Your task to perform on an android device: Search for "alienware aurora" on bestbuy, select the first entry, and add it to the cart. Image 0: 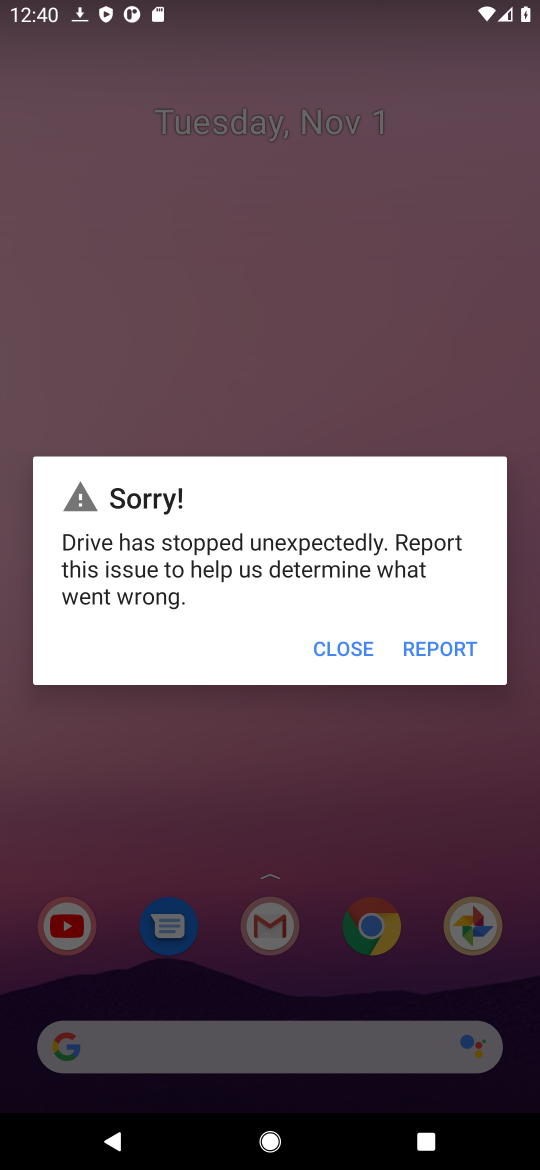
Step 0: click (310, 665)
Your task to perform on an android device: Search for "alienware aurora" on bestbuy, select the first entry, and add it to the cart. Image 1: 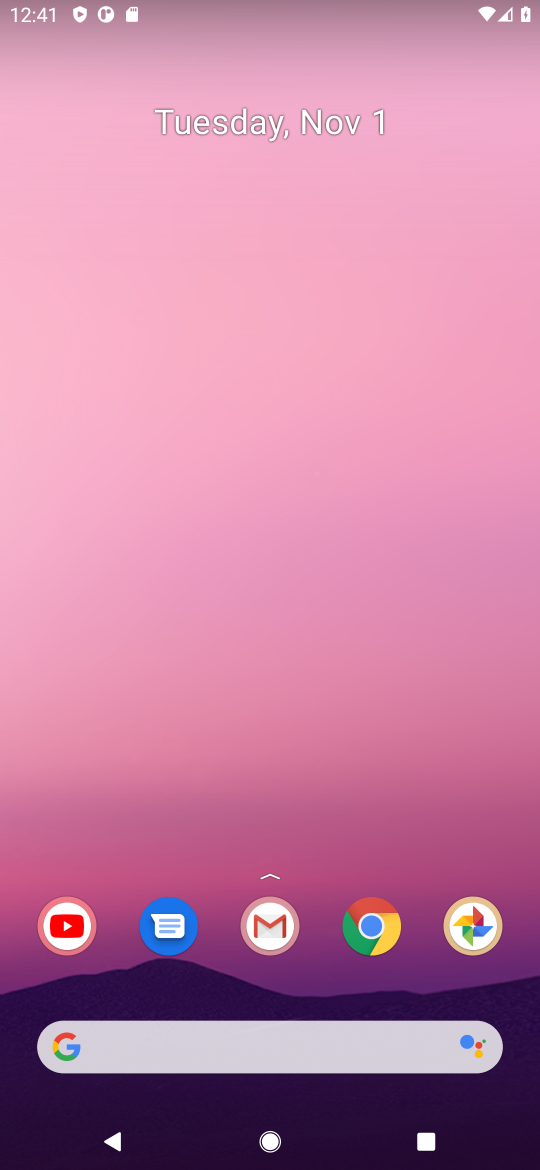
Step 1: click (355, 934)
Your task to perform on an android device: Search for "alienware aurora" on bestbuy, select the first entry, and add it to the cart. Image 2: 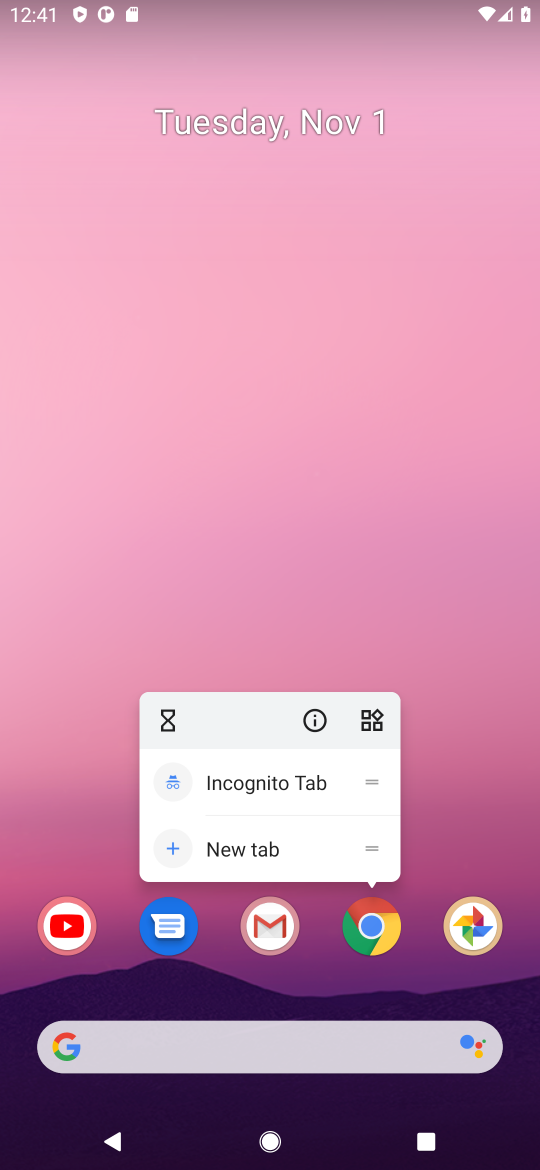
Step 2: click (372, 937)
Your task to perform on an android device: Search for "alienware aurora" on bestbuy, select the first entry, and add it to the cart. Image 3: 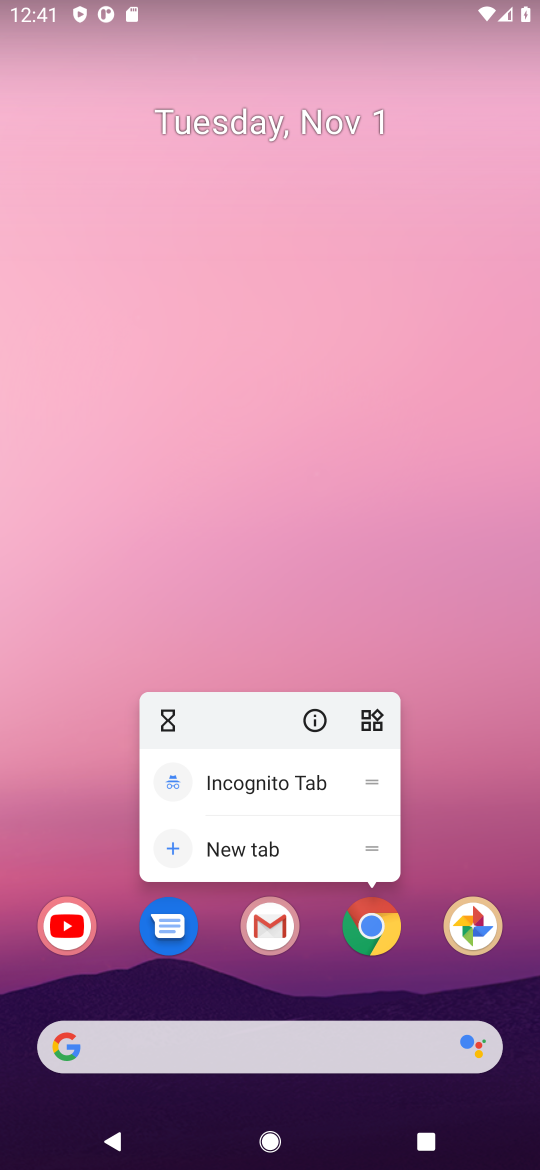
Step 3: click (372, 937)
Your task to perform on an android device: Search for "alienware aurora" on bestbuy, select the first entry, and add it to the cart. Image 4: 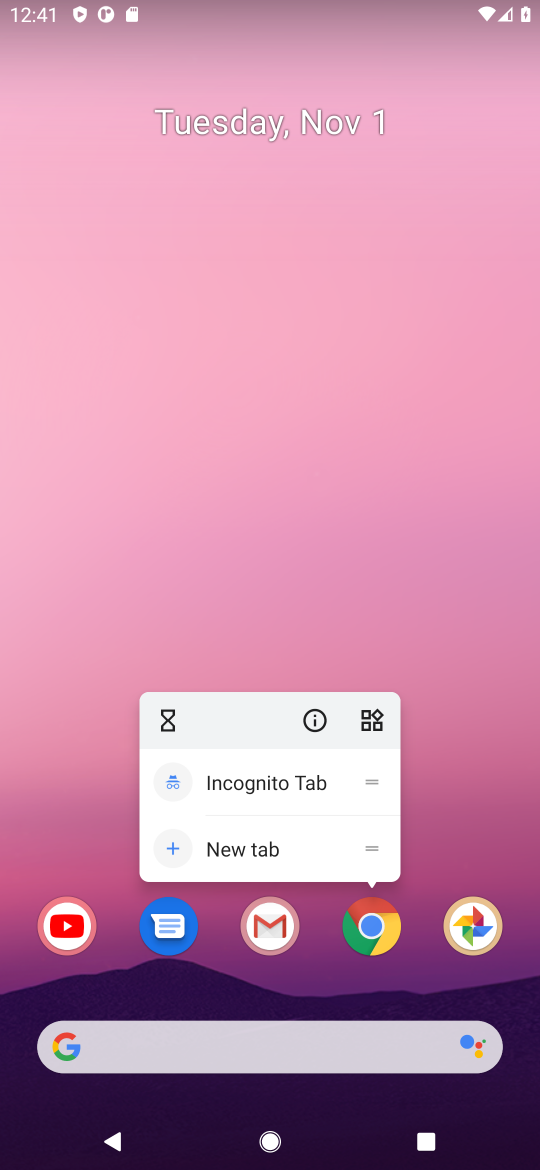
Step 4: click (371, 930)
Your task to perform on an android device: Search for "alienware aurora" on bestbuy, select the first entry, and add it to the cart. Image 5: 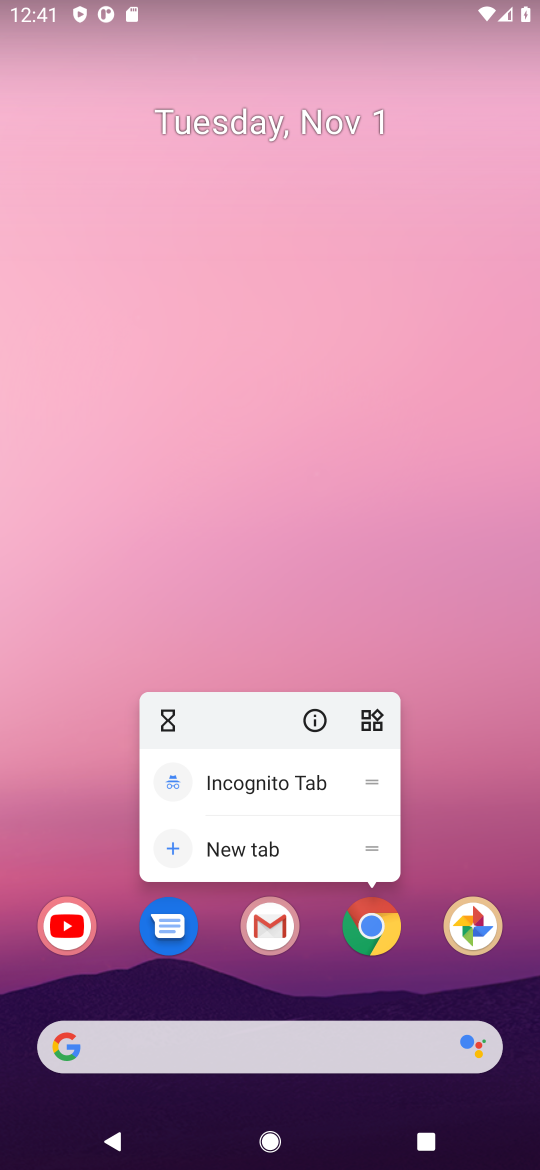
Step 5: click (369, 939)
Your task to perform on an android device: Search for "alienware aurora" on bestbuy, select the first entry, and add it to the cart. Image 6: 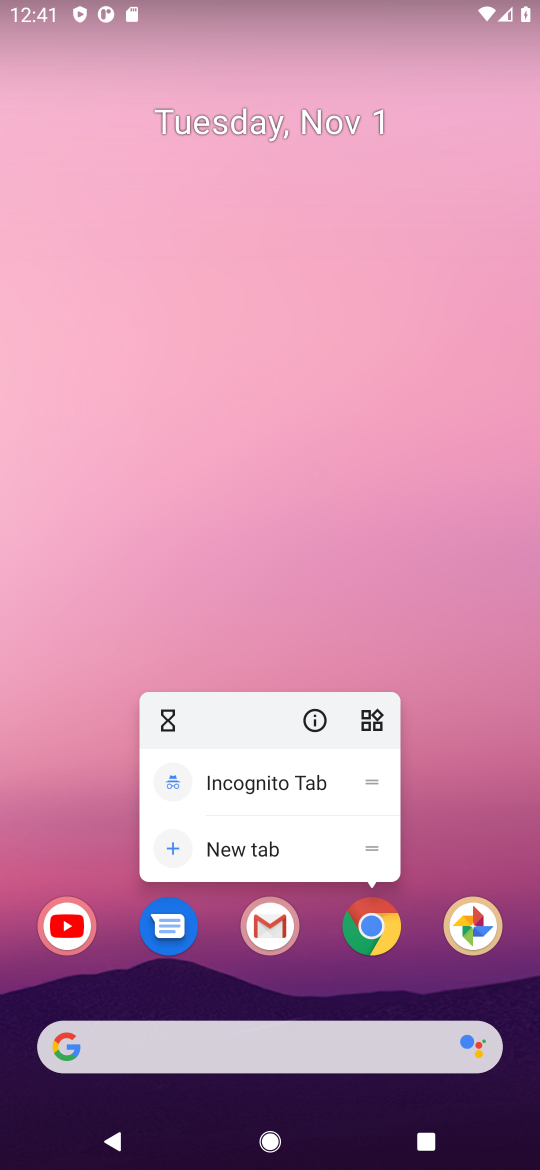
Step 6: click (377, 952)
Your task to perform on an android device: Search for "alienware aurora" on bestbuy, select the first entry, and add it to the cart. Image 7: 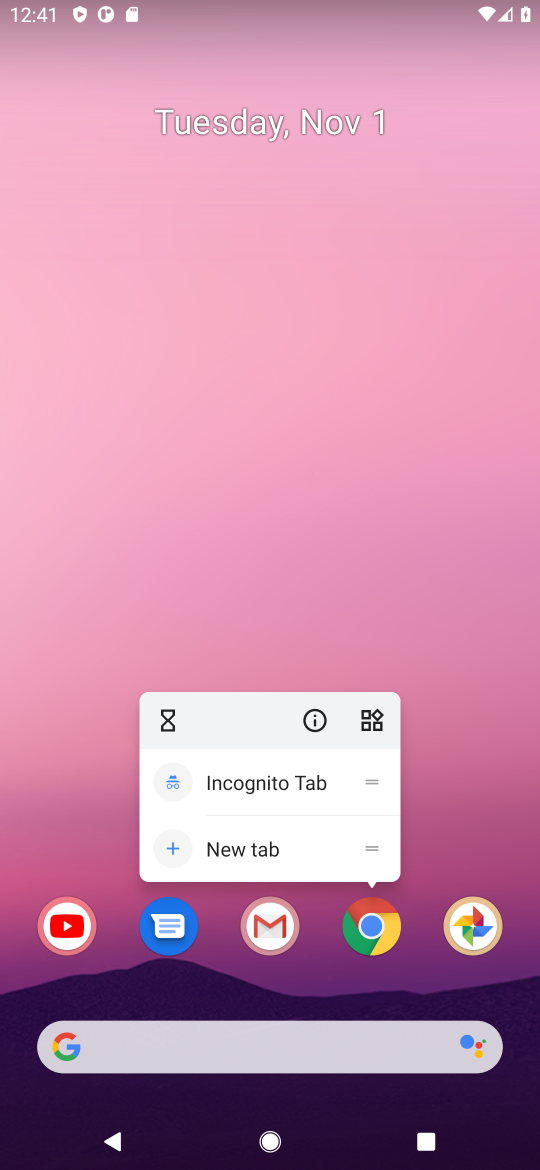
Step 7: click (378, 936)
Your task to perform on an android device: Search for "alienware aurora" on bestbuy, select the first entry, and add it to the cart. Image 8: 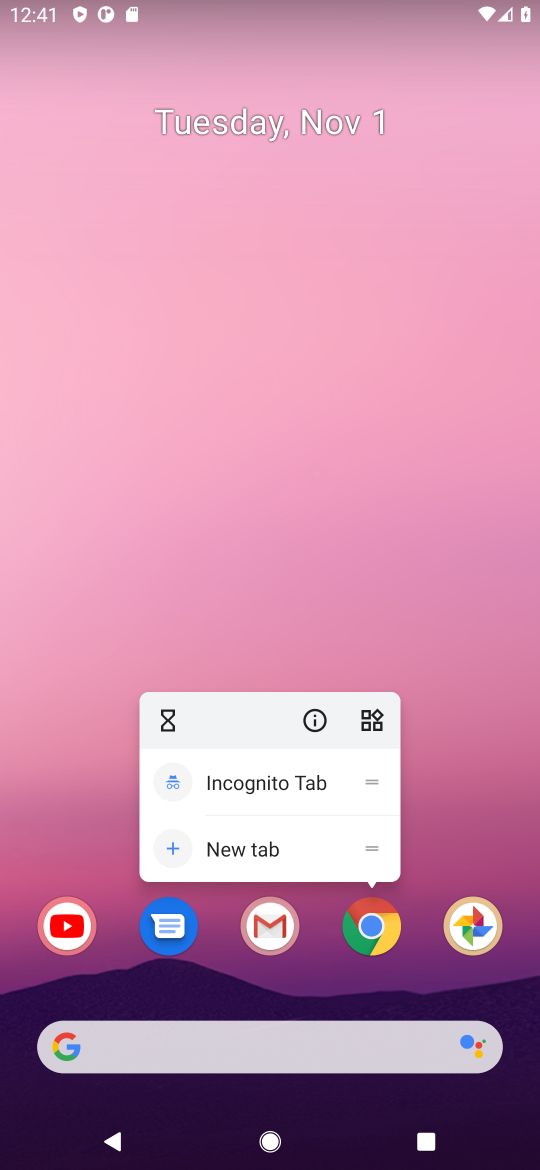
Step 8: click (377, 930)
Your task to perform on an android device: Search for "alienware aurora" on bestbuy, select the first entry, and add it to the cart. Image 9: 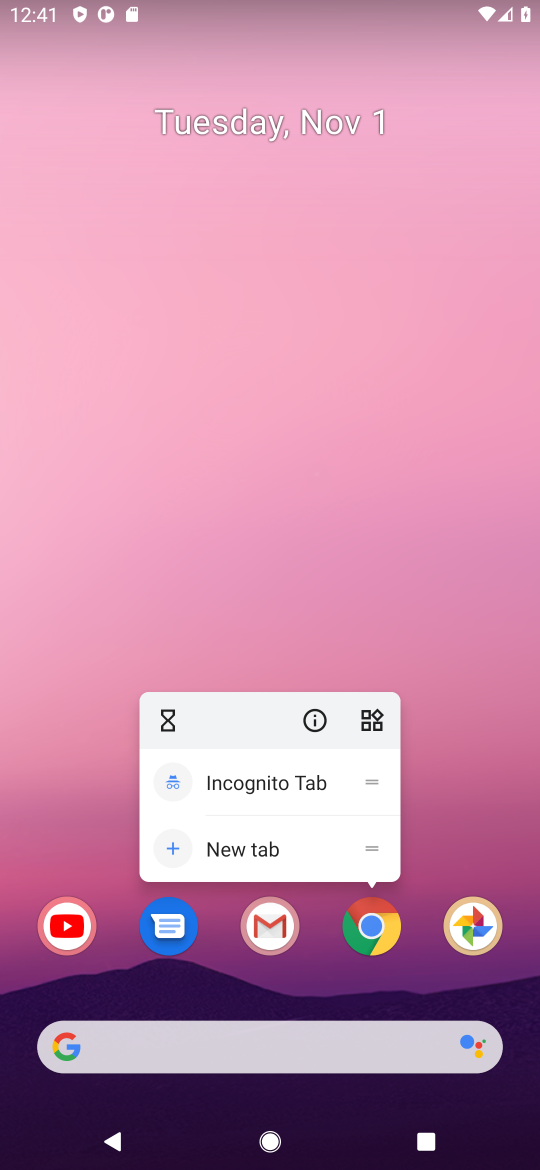
Step 9: click (372, 930)
Your task to perform on an android device: Search for "alienware aurora" on bestbuy, select the first entry, and add it to the cart. Image 10: 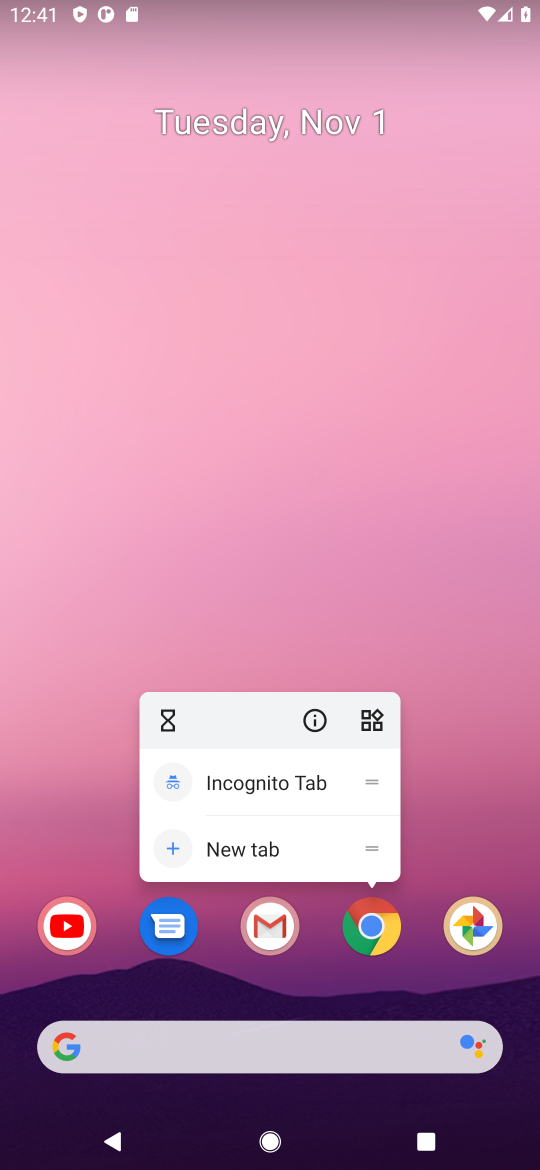
Step 10: click (372, 954)
Your task to perform on an android device: Search for "alienware aurora" on bestbuy, select the first entry, and add it to the cart. Image 11: 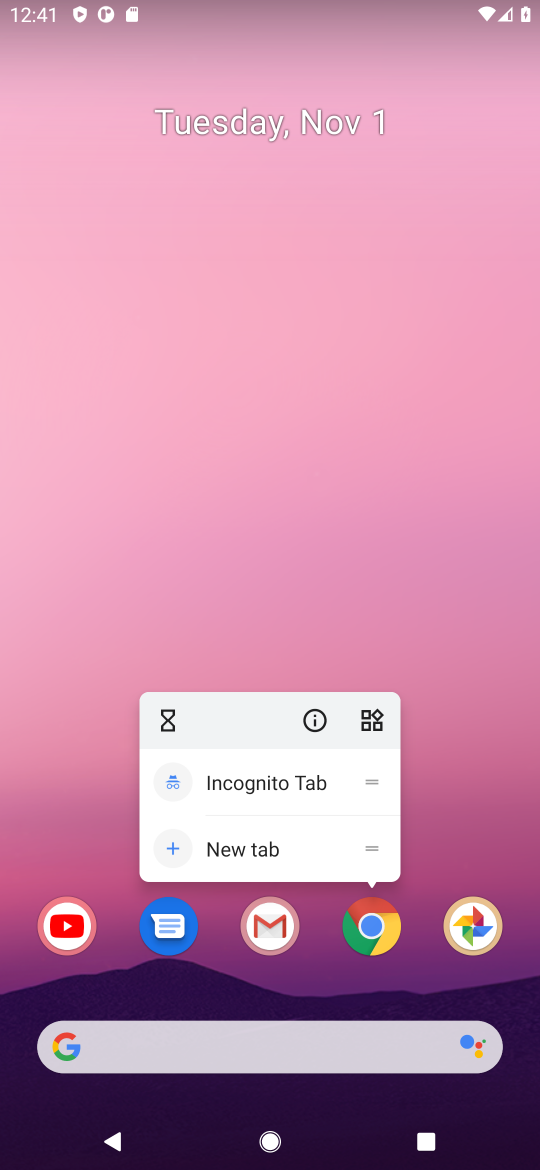
Step 11: click (366, 924)
Your task to perform on an android device: Search for "alienware aurora" on bestbuy, select the first entry, and add it to the cart. Image 12: 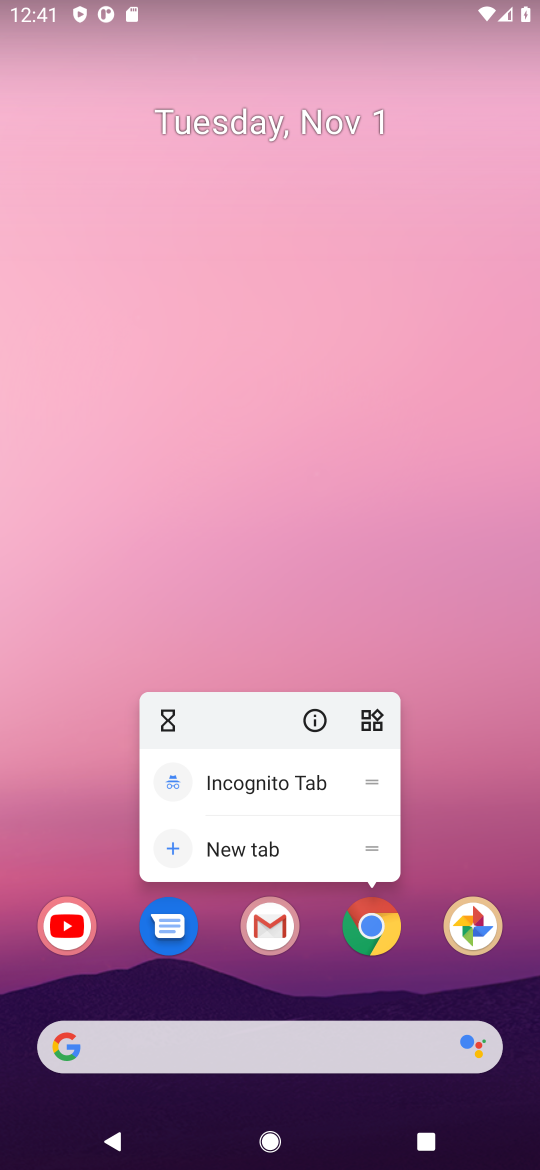
Step 12: drag from (364, 566) to (331, 16)
Your task to perform on an android device: Search for "alienware aurora" on bestbuy, select the first entry, and add it to the cart. Image 13: 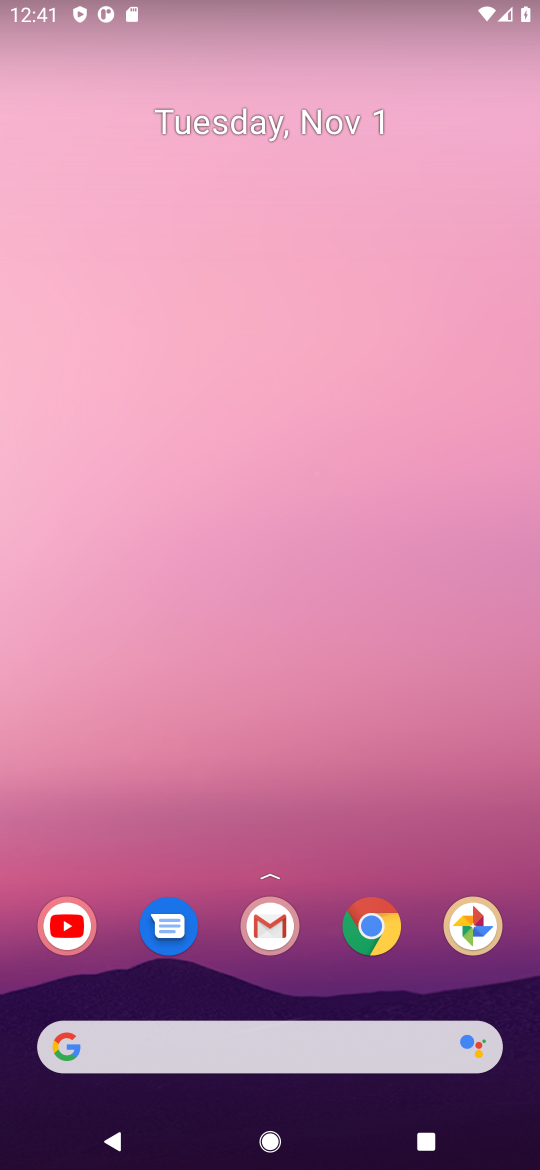
Step 13: drag from (343, 1014) to (322, 80)
Your task to perform on an android device: Search for "alienware aurora" on bestbuy, select the first entry, and add it to the cart. Image 14: 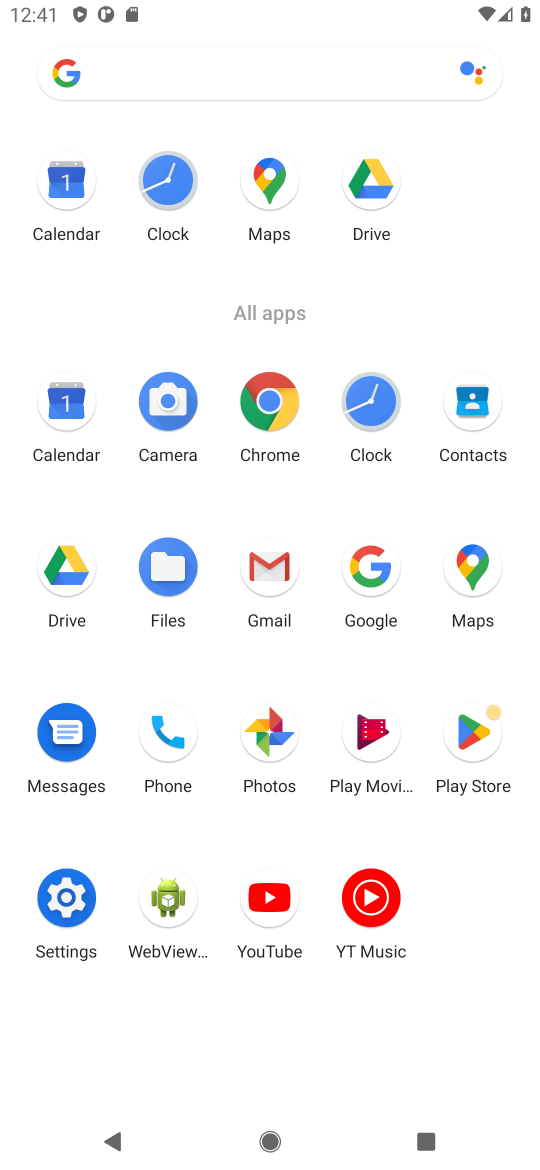
Step 14: click (261, 456)
Your task to perform on an android device: Search for "alienware aurora" on bestbuy, select the first entry, and add it to the cart. Image 15: 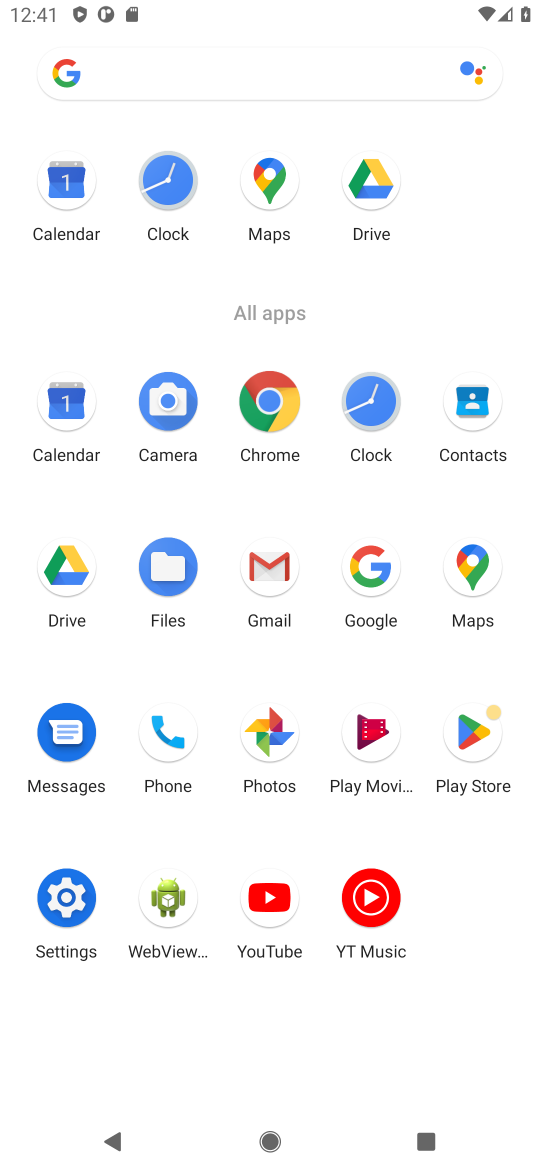
Step 15: click (268, 408)
Your task to perform on an android device: Search for "alienware aurora" on bestbuy, select the first entry, and add it to the cart. Image 16: 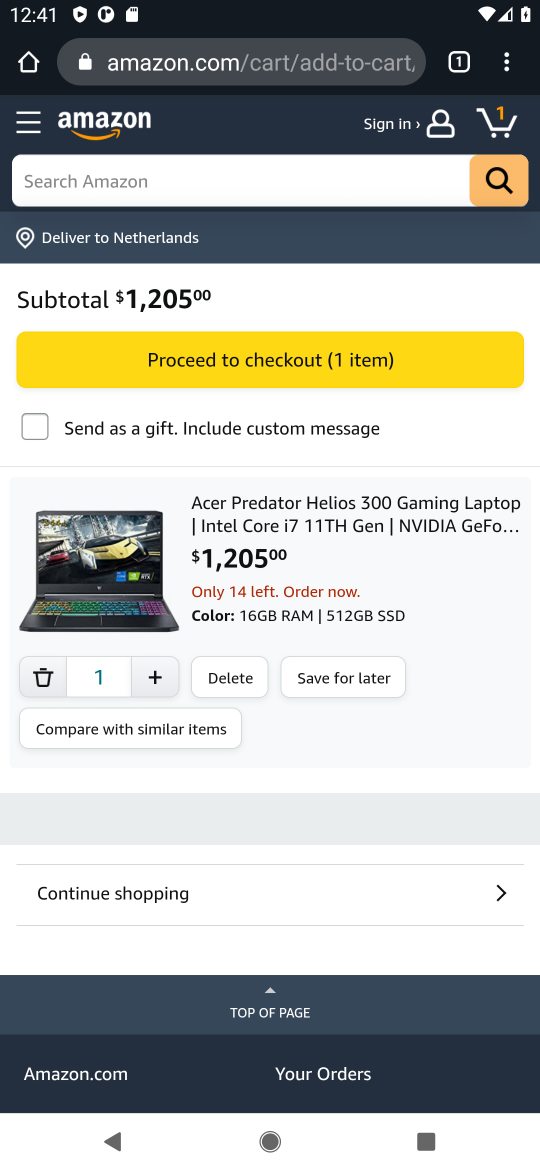
Step 16: click (203, 77)
Your task to perform on an android device: Search for "alienware aurora" on bestbuy, select the first entry, and add it to the cart. Image 17: 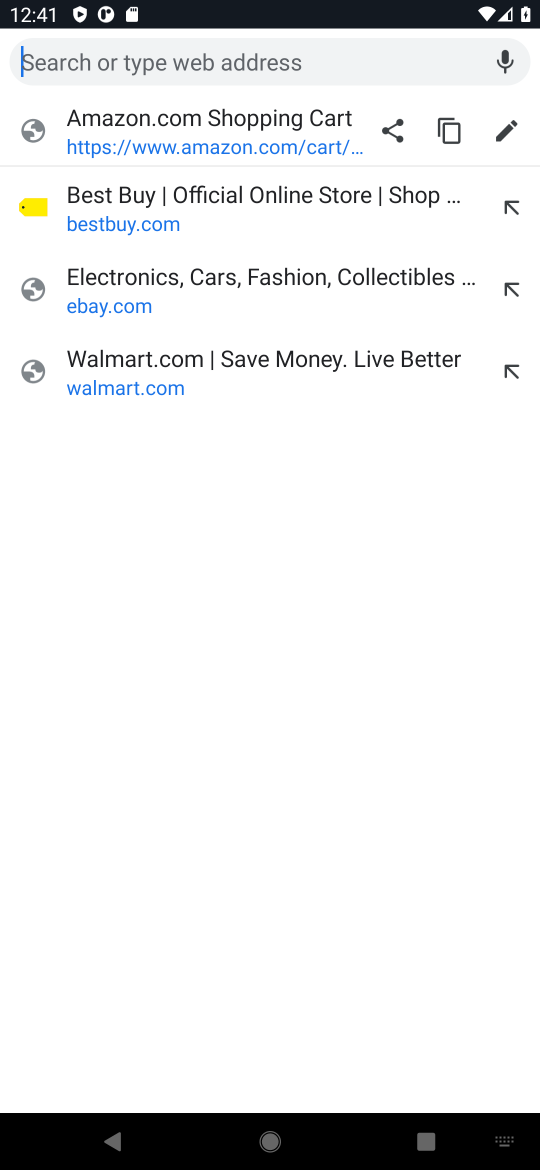
Step 17: click (172, 224)
Your task to perform on an android device: Search for "alienware aurora" on bestbuy, select the first entry, and add it to the cart. Image 18: 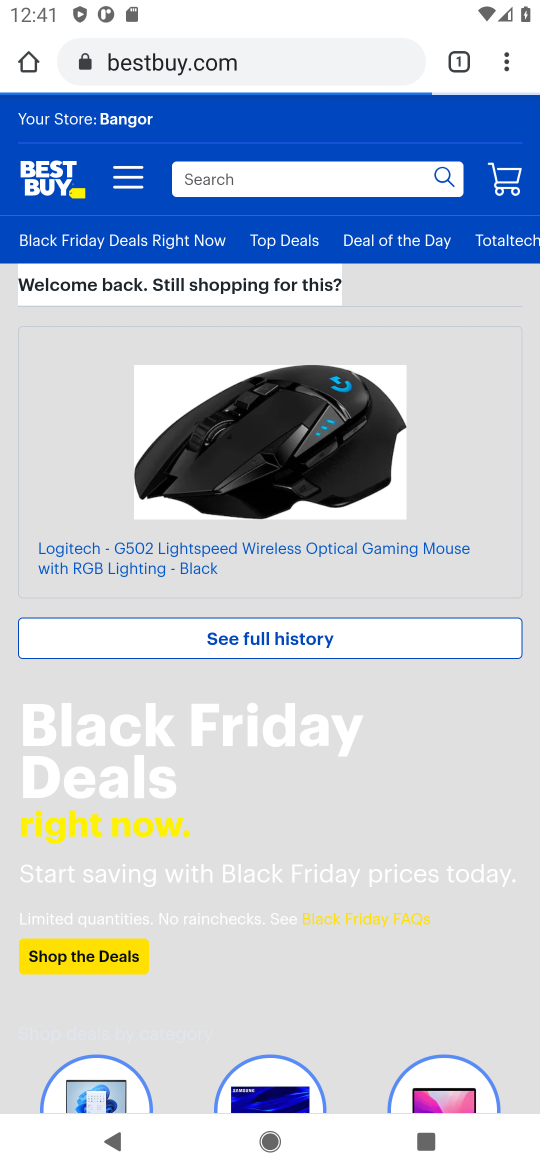
Step 18: click (218, 180)
Your task to perform on an android device: Search for "alienware aurora" on bestbuy, select the first entry, and add it to the cart. Image 19: 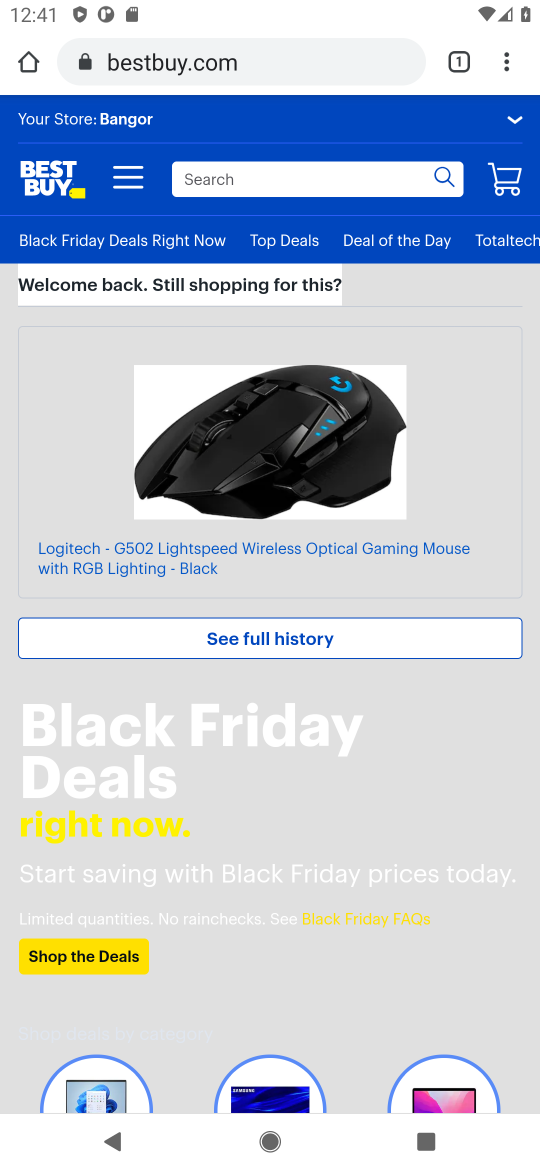
Step 19: click (269, 178)
Your task to perform on an android device: Search for "alienware aurora" on bestbuy, select the first entry, and add it to the cart. Image 20: 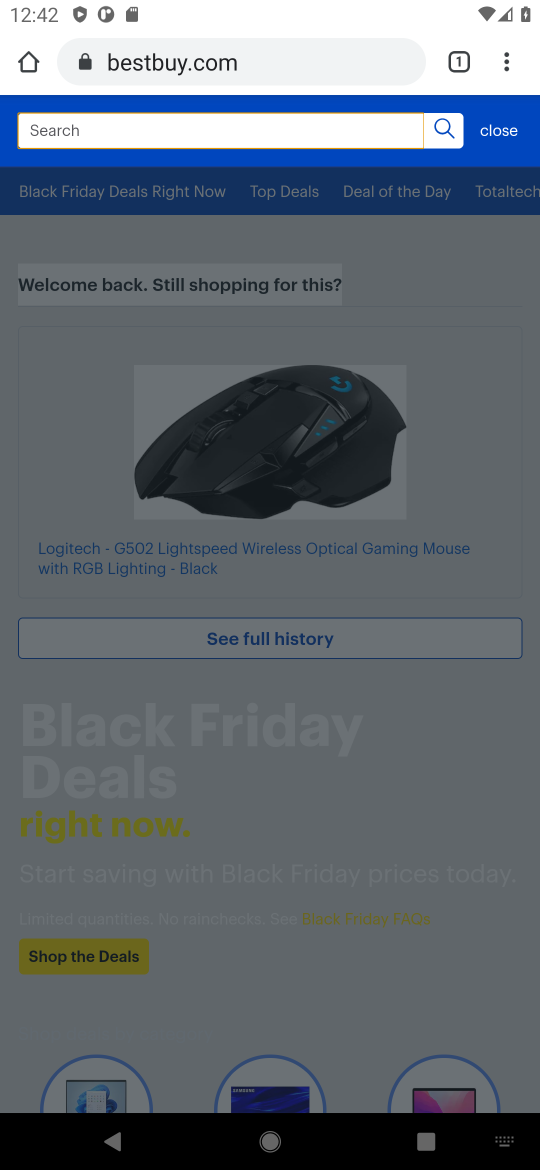
Step 20: type "alienware aurora"
Your task to perform on an android device: Search for "alienware aurora" on bestbuy, select the first entry, and add it to the cart. Image 21: 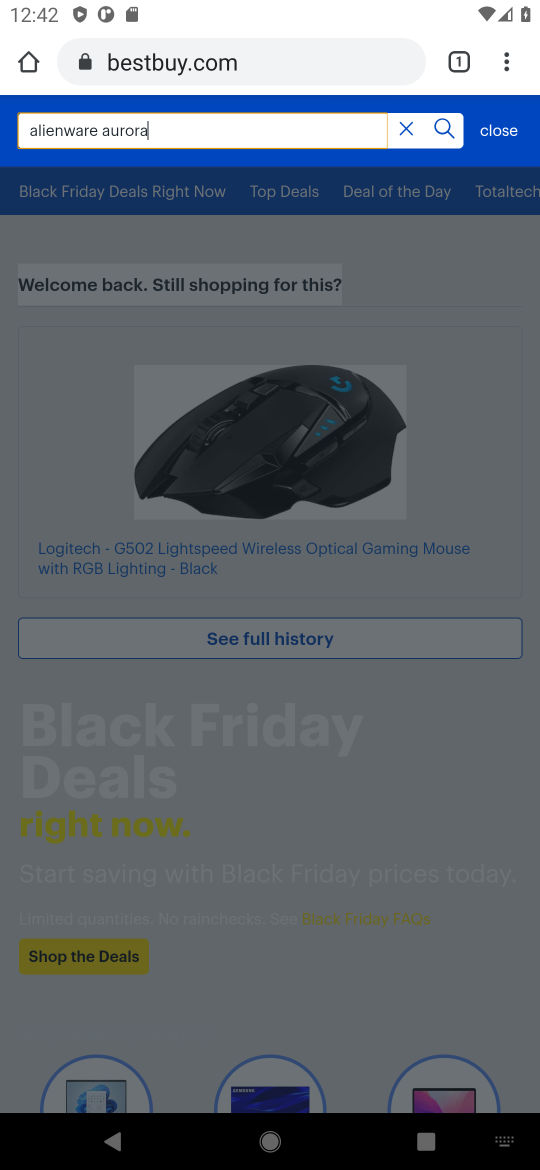
Step 21: type ""
Your task to perform on an android device: Search for "alienware aurora" on bestbuy, select the first entry, and add it to the cart. Image 22: 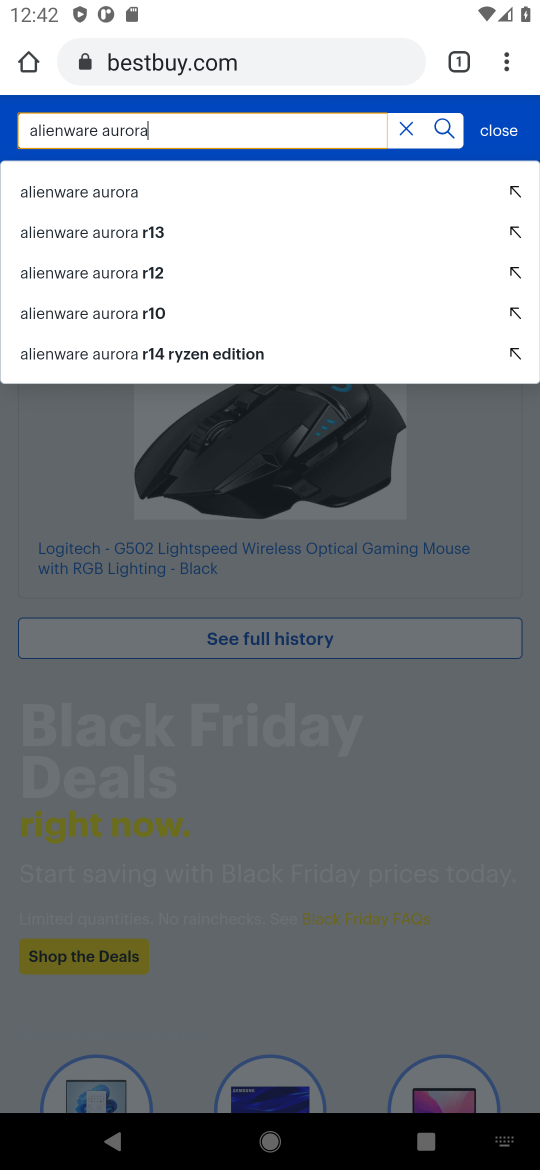
Step 22: click (233, 195)
Your task to perform on an android device: Search for "alienware aurora" on bestbuy, select the first entry, and add it to the cart. Image 23: 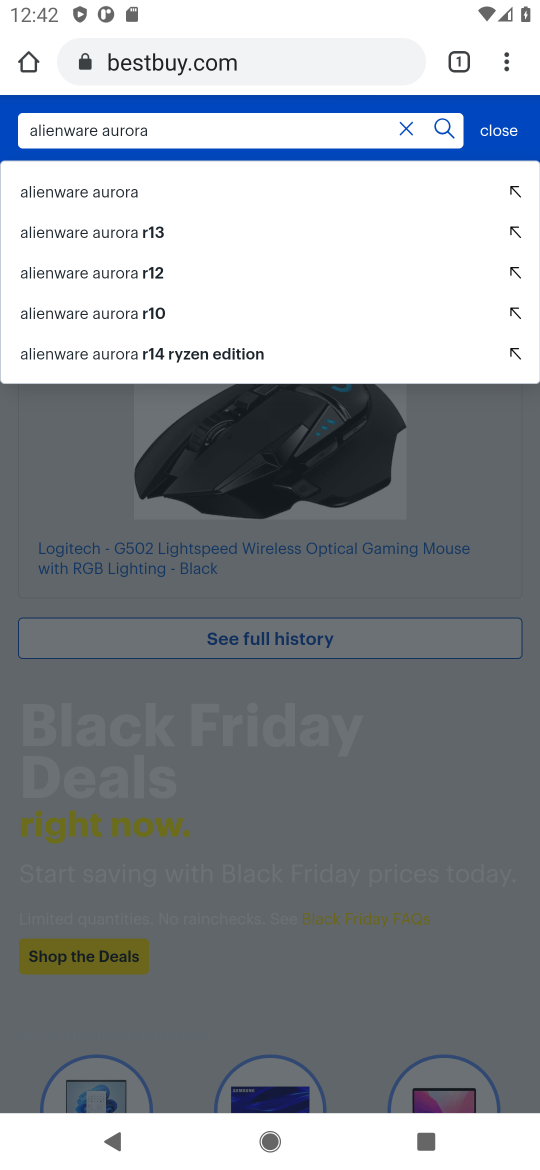
Step 23: click (148, 201)
Your task to perform on an android device: Search for "alienware aurora" on bestbuy, select the first entry, and add it to the cart. Image 24: 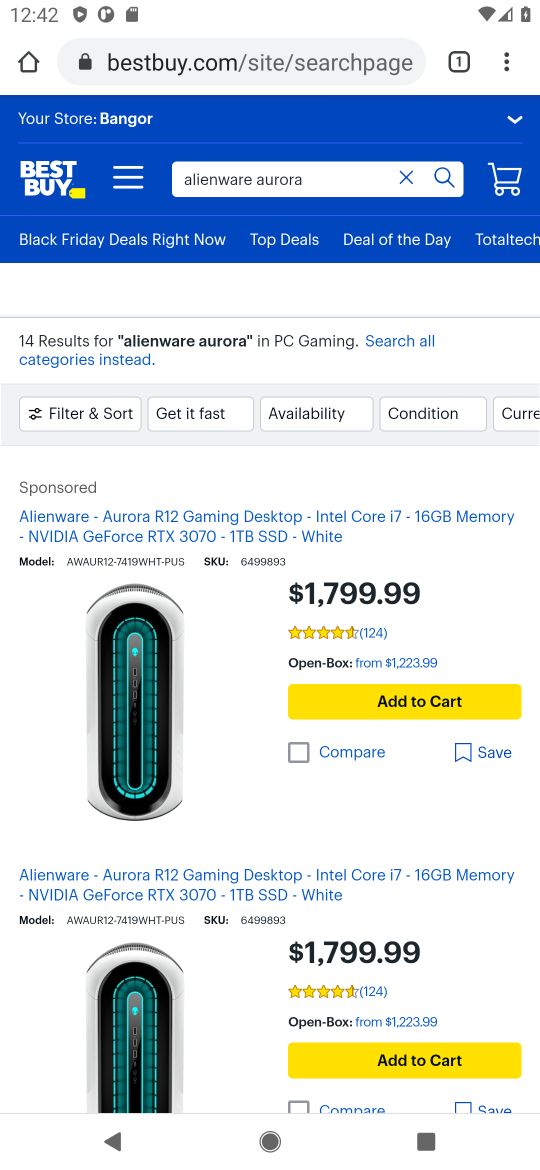
Step 24: click (425, 746)
Your task to perform on an android device: Search for "alienware aurora" on bestbuy, select the first entry, and add it to the cart. Image 25: 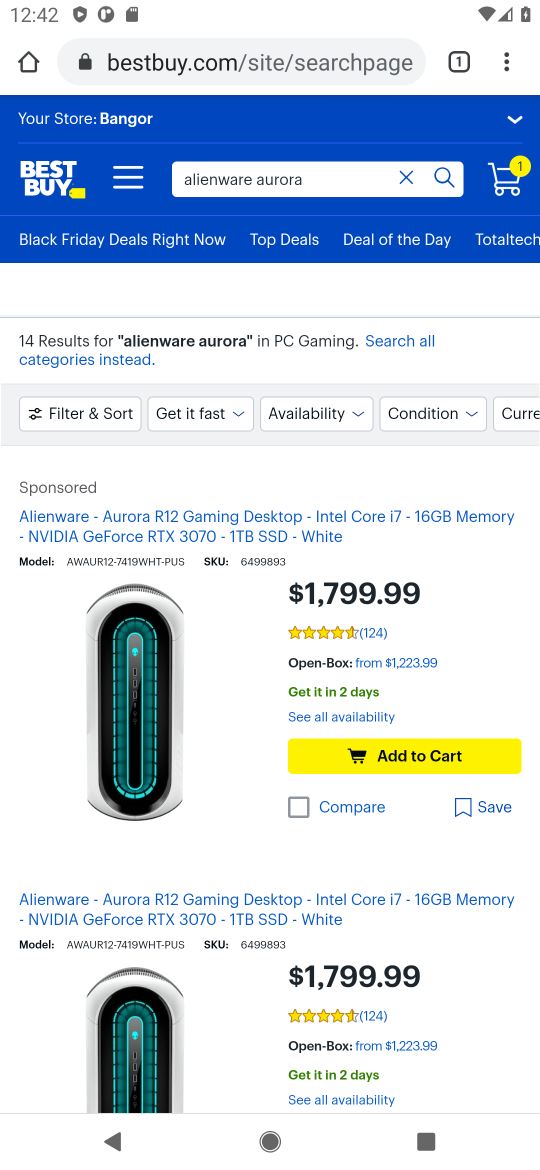
Step 25: click (494, 183)
Your task to perform on an android device: Search for "alienware aurora" on bestbuy, select the first entry, and add it to the cart. Image 26: 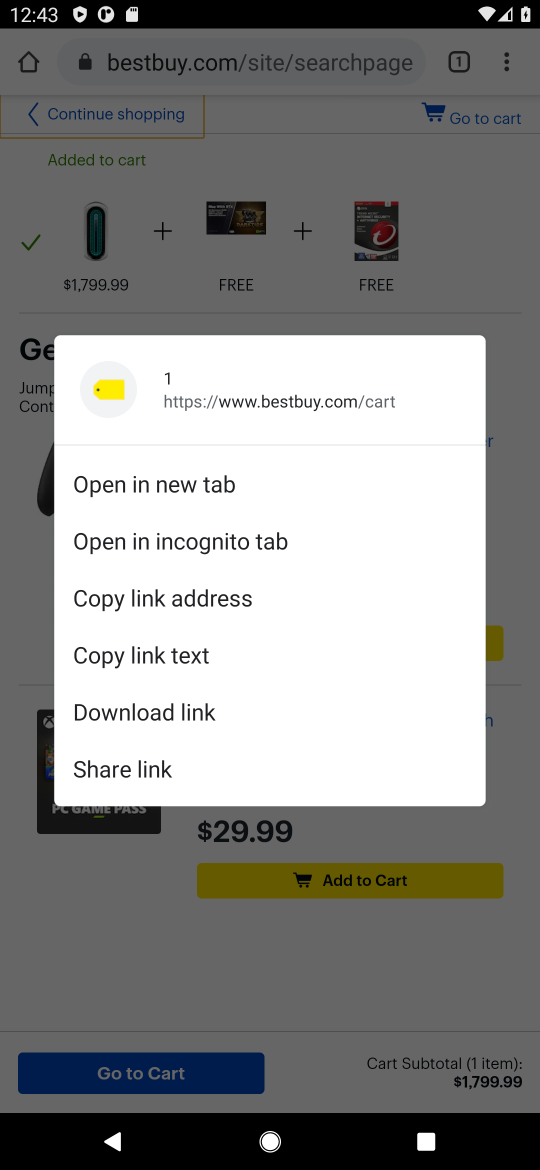
Step 26: click (177, 936)
Your task to perform on an android device: Search for "alienware aurora" on bestbuy, select the first entry, and add it to the cart. Image 27: 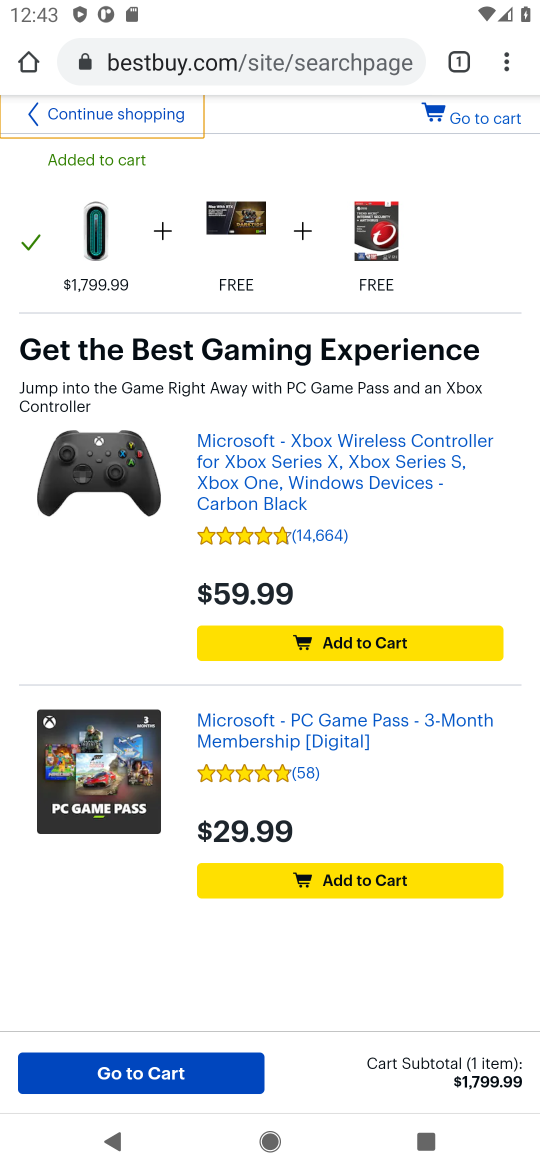
Step 27: click (224, 1053)
Your task to perform on an android device: Search for "alienware aurora" on bestbuy, select the first entry, and add it to the cart. Image 28: 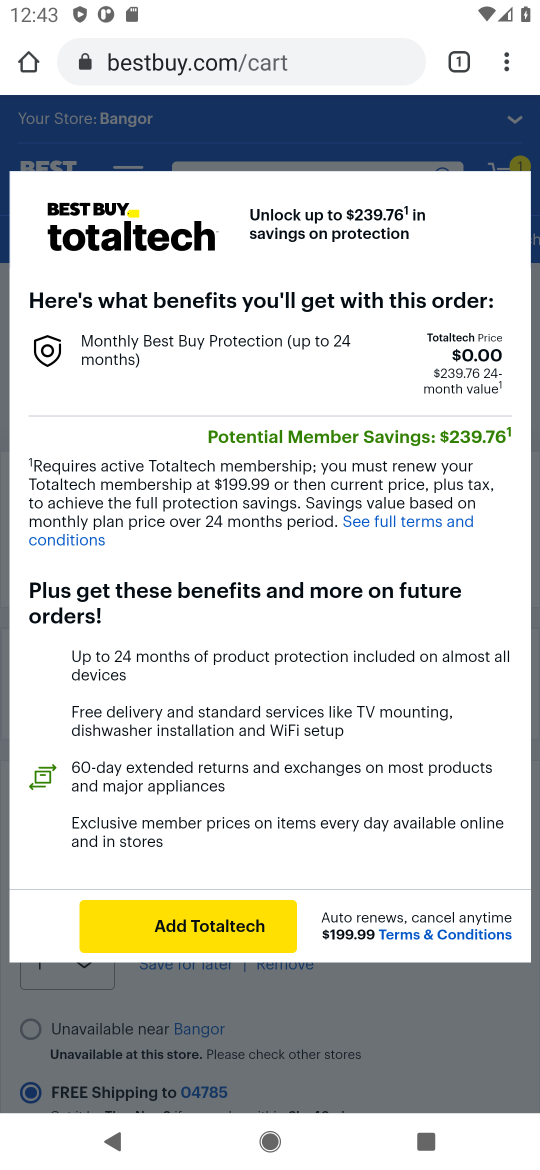
Step 28: click (291, 562)
Your task to perform on an android device: Search for "alienware aurora" on bestbuy, select the first entry, and add it to the cart. Image 29: 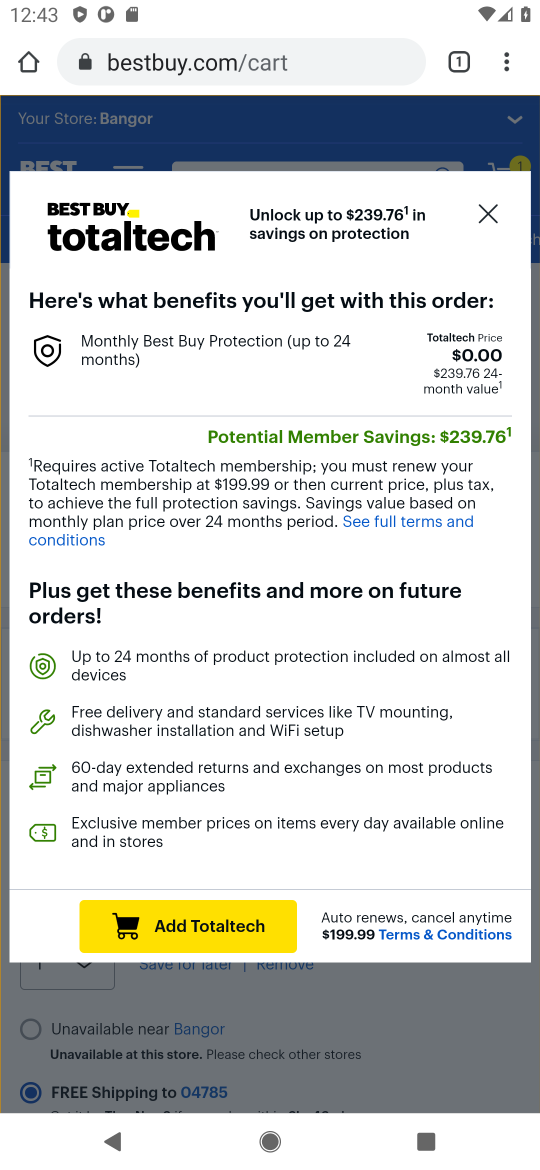
Step 29: click (481, 216)
Your task to perform on an android device: Search for "alienware aurora" on bestbuy, select the first entry, and add it to the cart. Image 30: 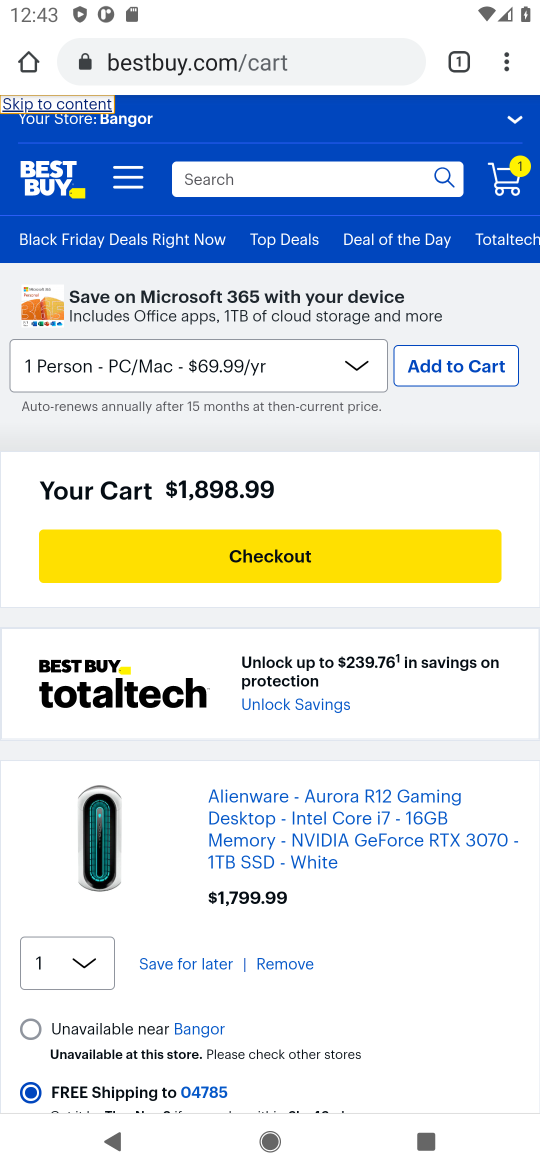
Step 30: click (295, 560)
Your task to perform on an android device: Search for "alienware aurora" on bestbuy, select the first entry, and add it to the cart. Image 31: 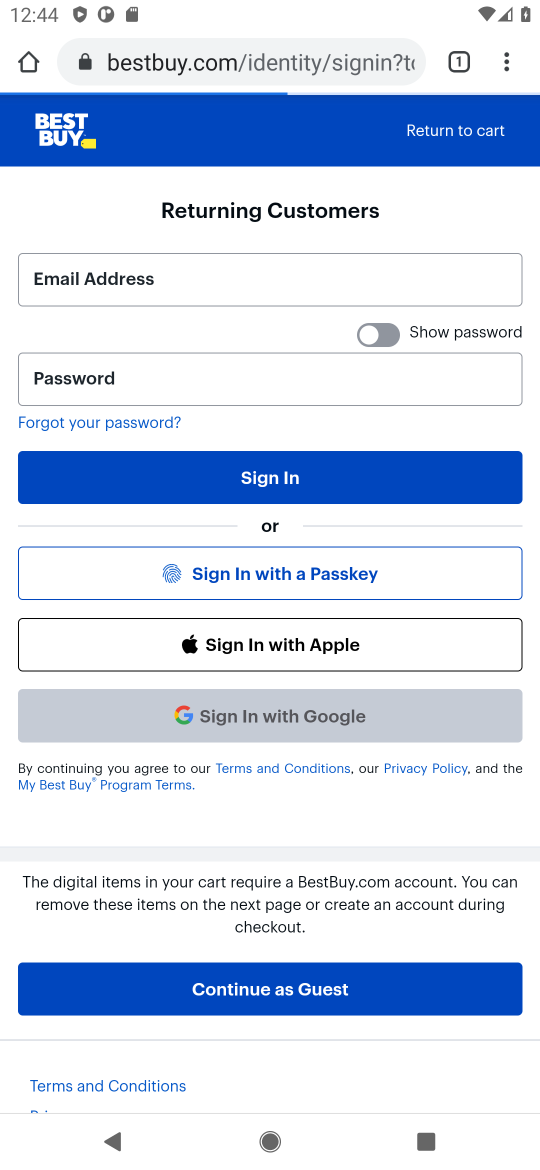
Step 31: click (345, 985)
Your task to perform on an android device: Search for "alienware aurora" on bestbuy, select the first entry, and add it to the cart. Image 32: 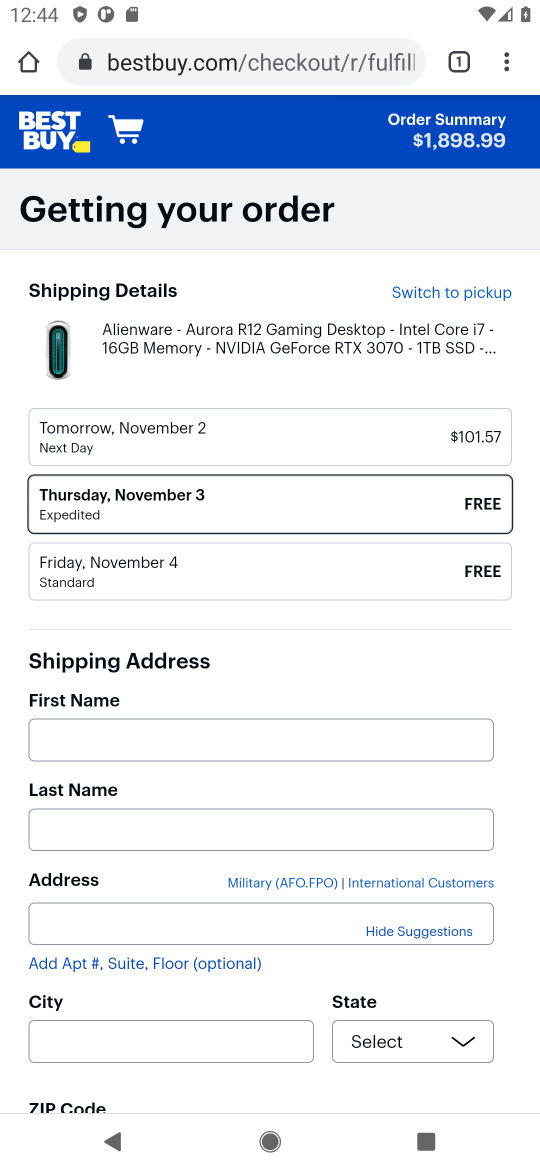
Step 32: task complete